Your task to perform on an android device: visit the assistant section in the google photos Image 0: 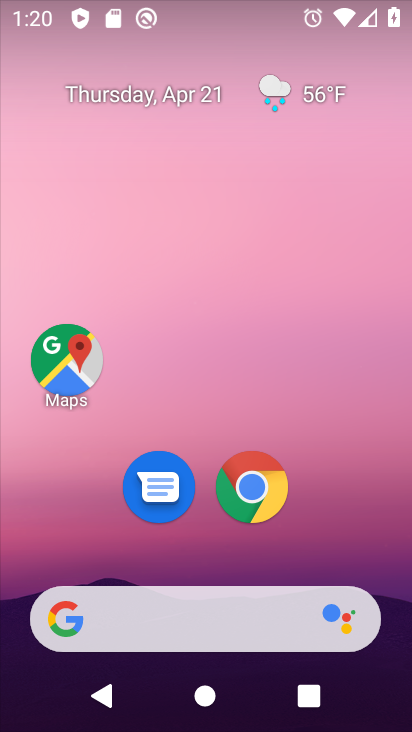
Step 0: drag from (349, 465) to (296, 55)
Your task to perform on an android device: visit the assistant section in the google photos Image 1: 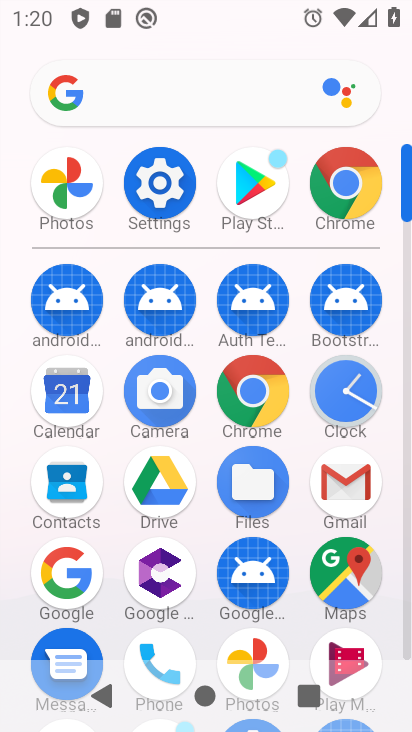
Step 1: click (73, 181)
Your task to perform on an android device: visit the assistant section in the google photos Image 2: 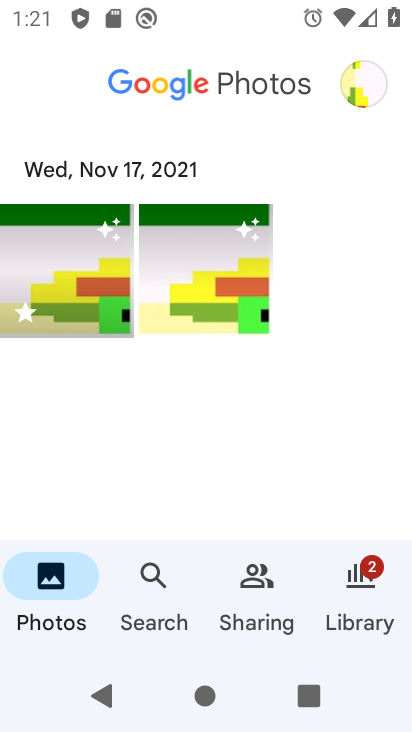
Step 2: click (159, 613)
Your task to perform on an android device: visit the assistant section in the google photos Image 3: 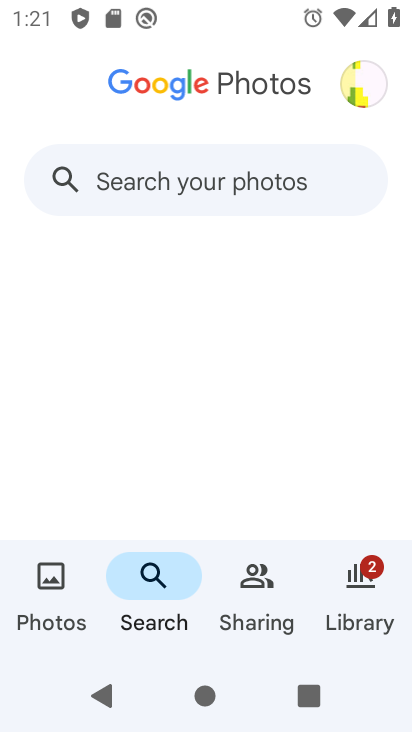
Step 3: click (236, 587)
Your task to perform on an android device: visit the assistant section in the google photos Image 4: 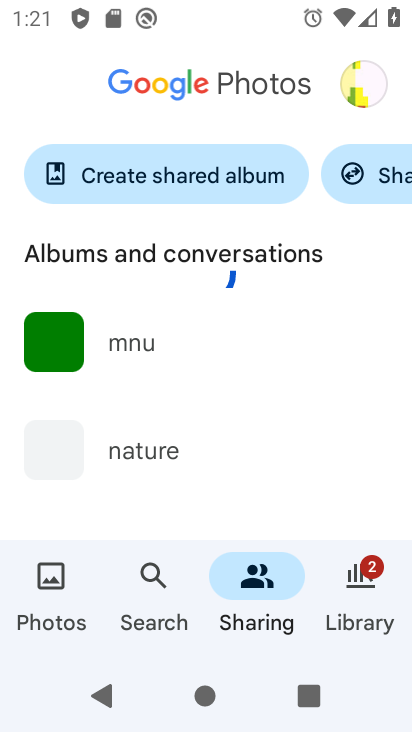
Step 4: click (366, 594)
Your task to perform on an android device: visit the assistant section in the google photos Image 5: 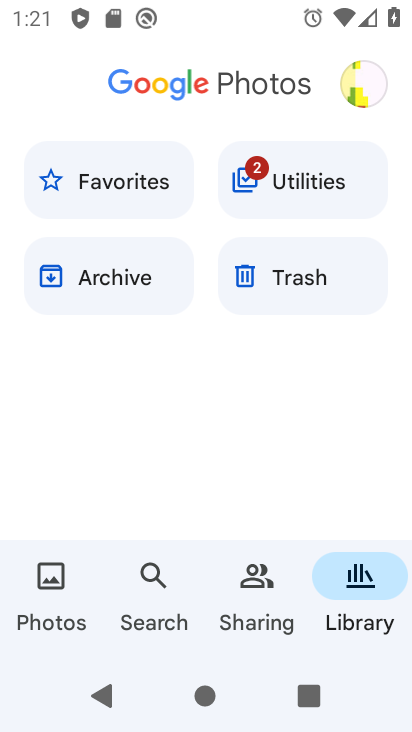
Step 5: drag from (286, 411) to (271, 102)
Your task to perform on an android device: visit the assistant section in the google photos Image 6: 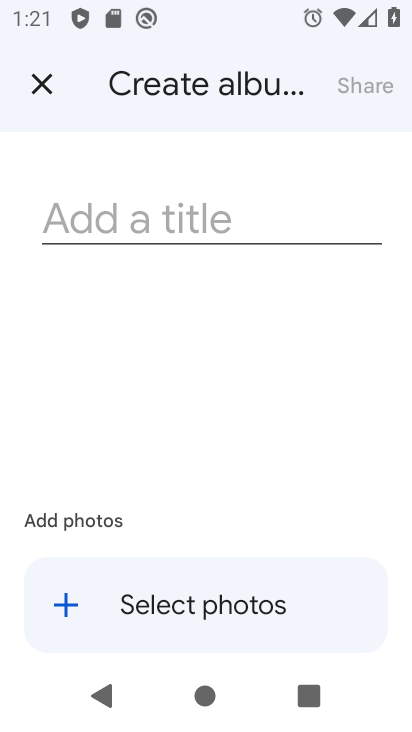
Step 6: click (44, 85)
Your task to perform on an android device: visit the assistant section in the google photos Image 7: 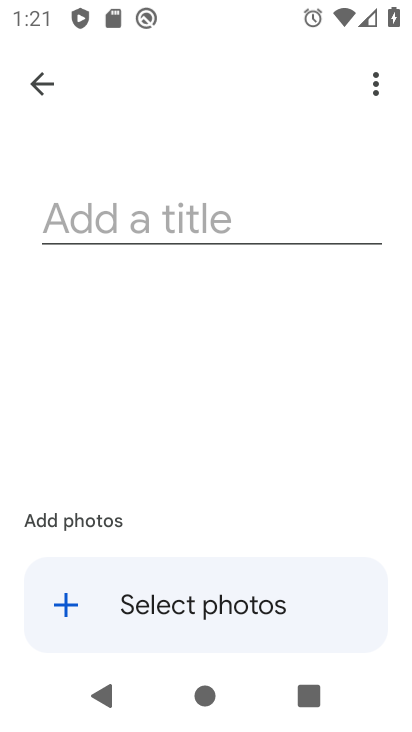
Step 7: click (43, 85)
Your task to perform on an android device: visit the assistant section in the google photos Image 8: 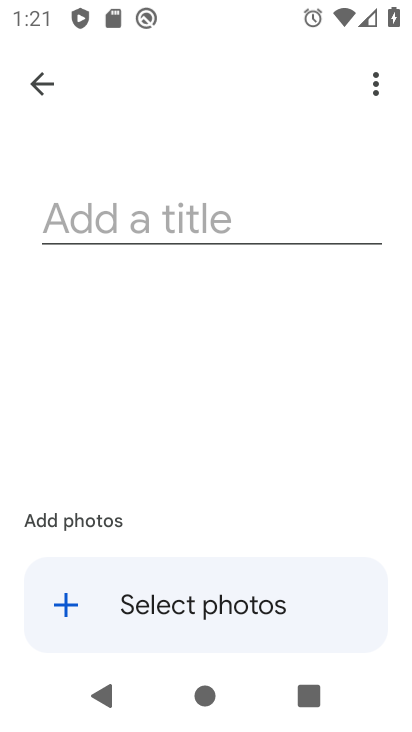
Step 8: task complete